Your task to perform on an android device: check battery use Image 0: 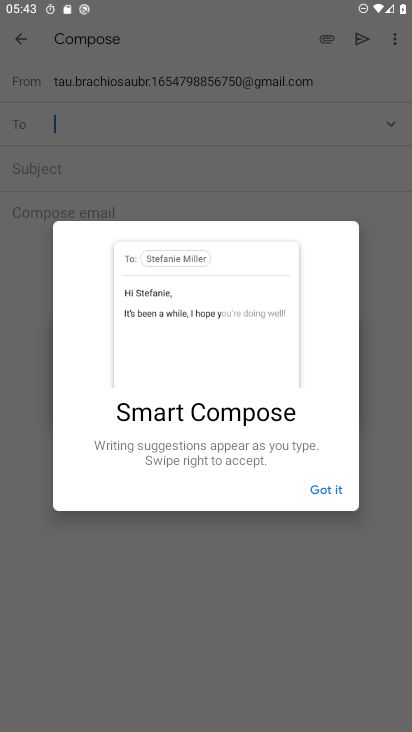
Step 0: press home button
Your task to perform on an android device: check battery use Image 1: 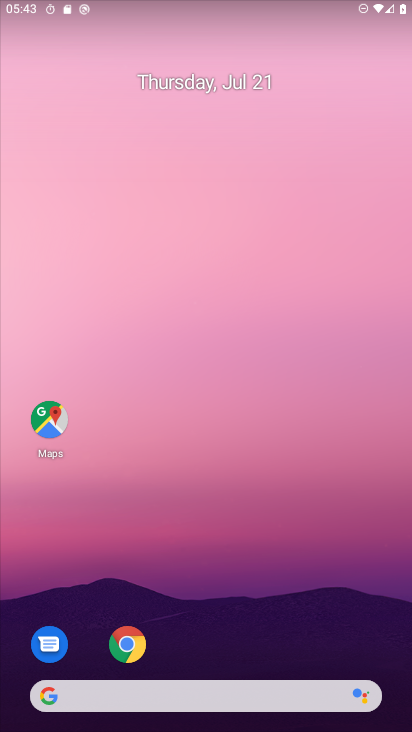
Step 1: drag from (184, 525) to (211, 154)
Your task to perform on an android device: check battery use Image 2: 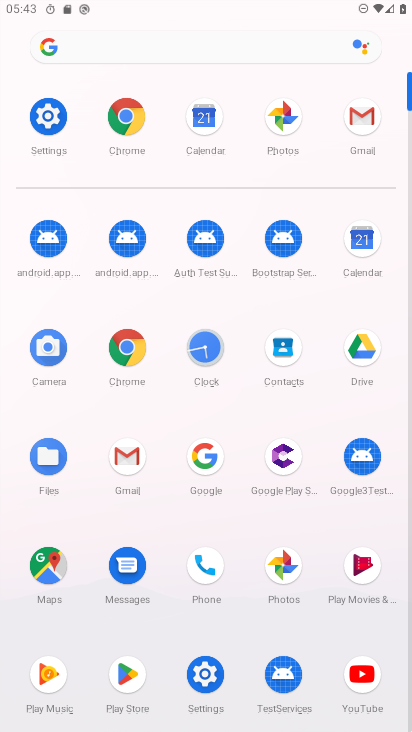
Step 2: click (44, 119)
Your task to perform on an android device: check battery use Image 3: 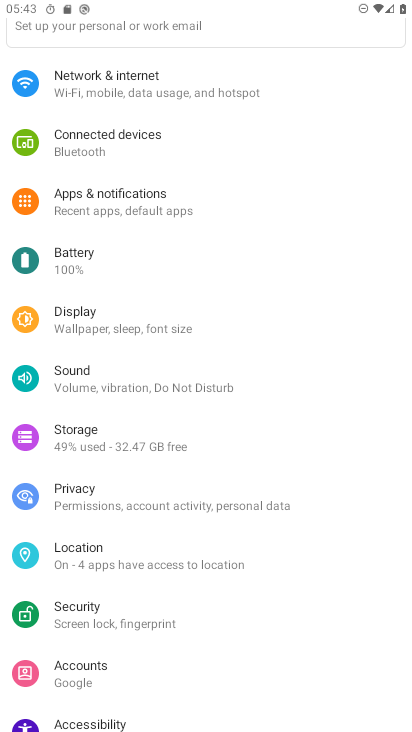
Step 3: click (73, 267)
Your task to perform on an android device: check battery use Image 4: 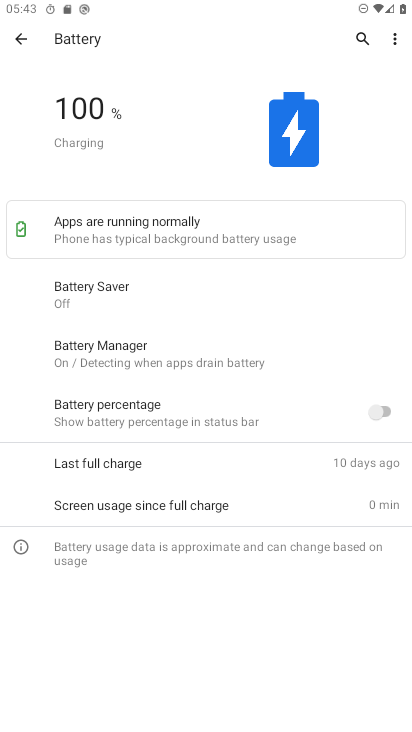
Step 4: task complete